Your task to perform on an android device: all mails in gmail Image 0: 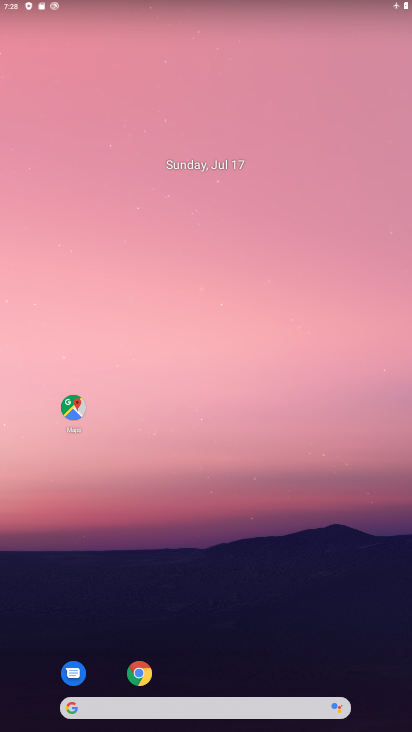
Step 0: drag from (210, 431) to (206, 216)
Your task to perform on an android device: all mails in gmail Image 1: 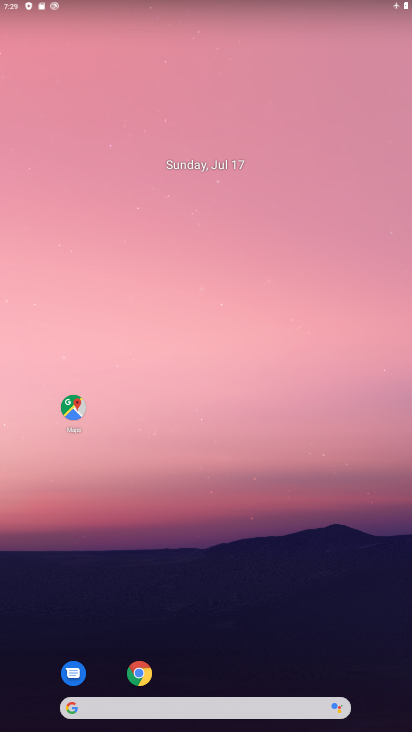
Step 1: drag from (286, 647) to (50, 1)
Your task to perform on an android device: all mails in gmail Image 2: 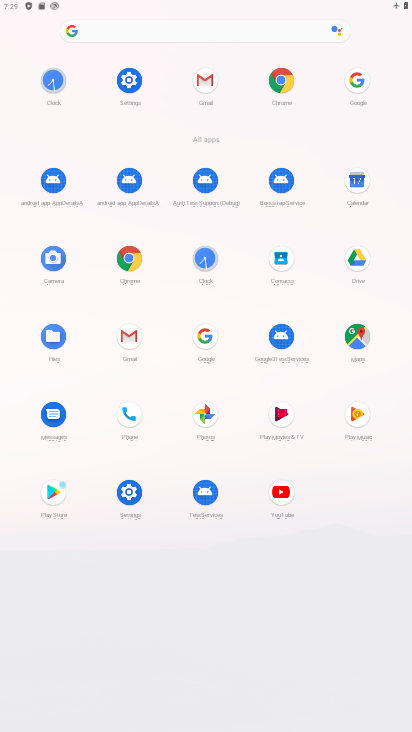
Step 2: click (206, 128)
Your task to perform on an android device: all mails in gmail Image 3: 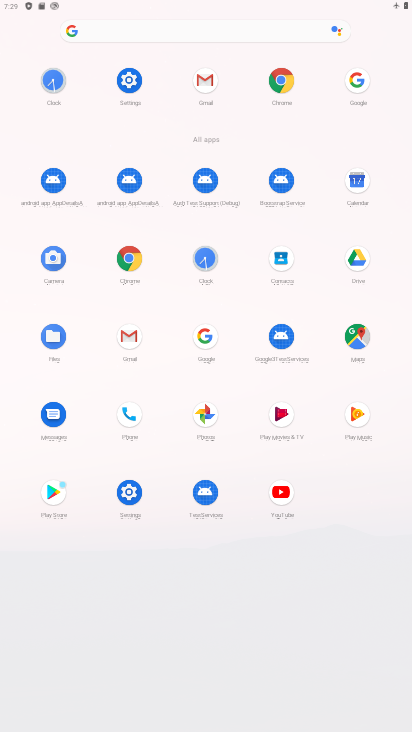
Step 3: click (200, 102)
Your task to perform on an android device: all mails in gmail Image 4: 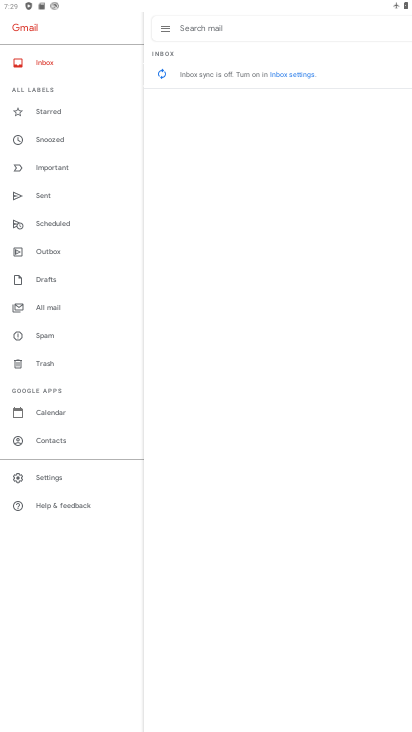
Step 4: click (62, 308)
Your task to perform on an android device: all mails in gmail Image 5: 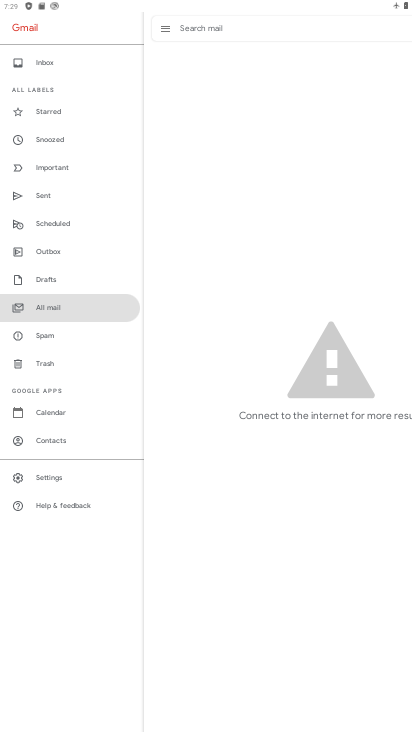
Step 5: task complete